Your task to perform on an android device: Search for sushi restaurants on Maps Image 0: 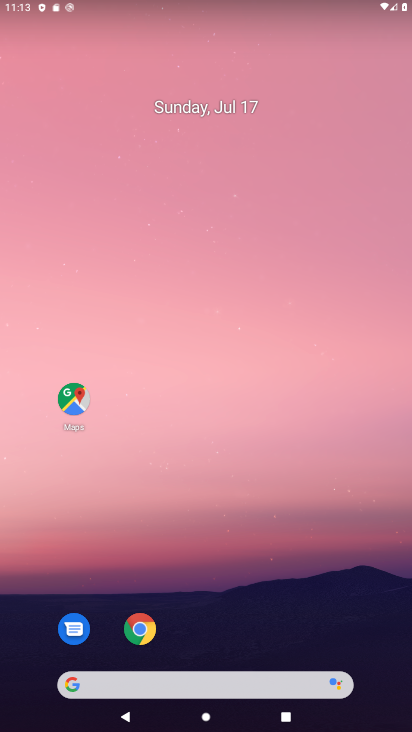
Step 0: drag from (171, 555) to (182, 250)
Your task to perform on an android device: Search for sushi restaurants on Maps Image 1: 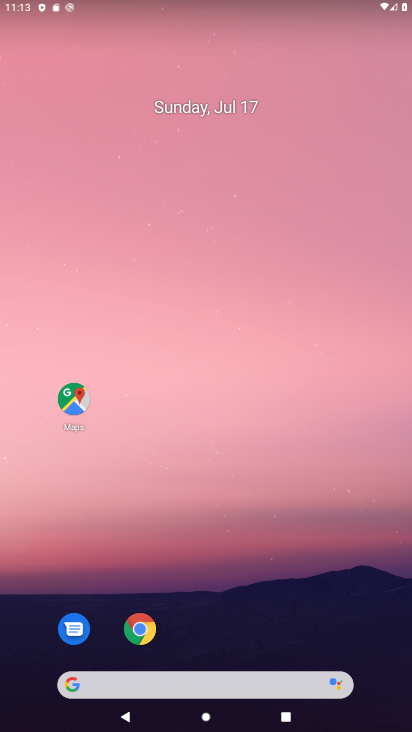
Step 1: click (73, 395)
Your task to perform on an android device: Search for sushi restaurants on Maps Image 2: 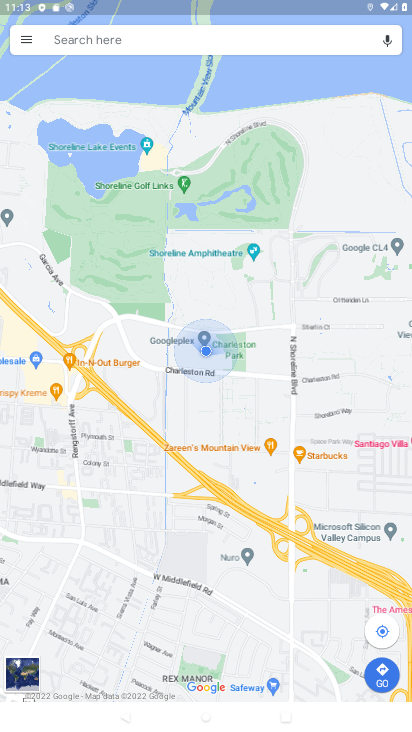
Step 2: click (202, 31)
Your task to perform on an android device: Search for sushi restaurants on Maps Image 3: 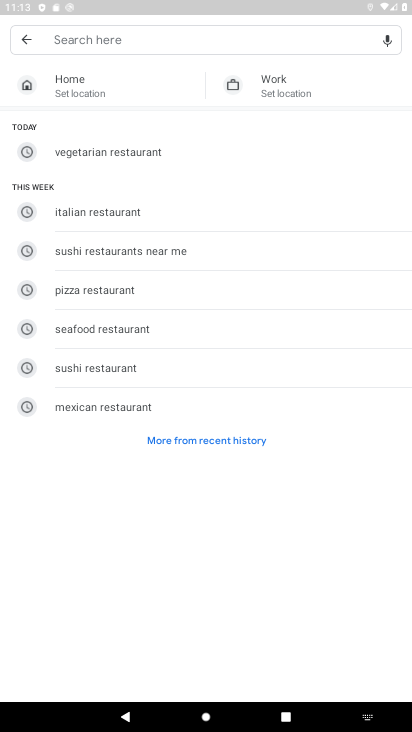
Step 3: type " sushi restaurants "
Your task to perform on an android device: Search for sushi restaurants on Maps Image 4: 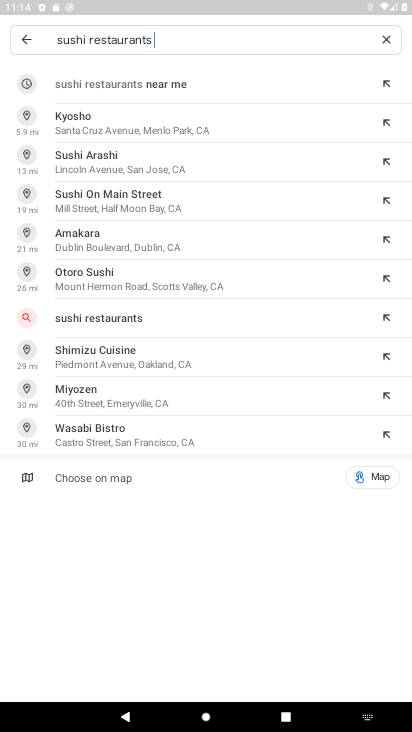
Step 4: click (164, 41)
Your task to perform on an android device: Search for sushi restaurants on Maps Image 5: 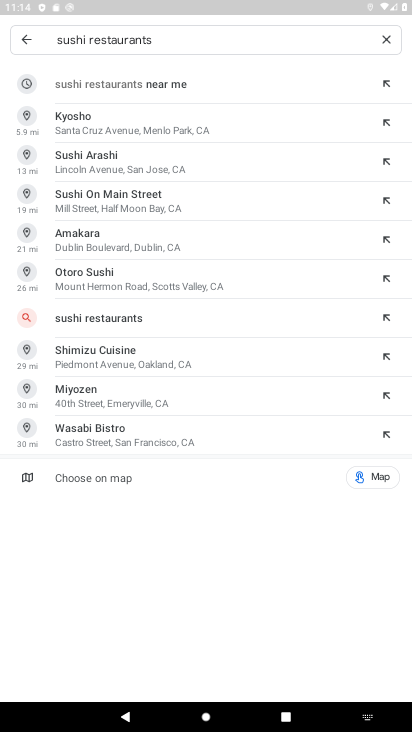
Step 5: click (13, 39)
Your task to perform on an android device: Search for sushi restaurants on Maps Image 6: 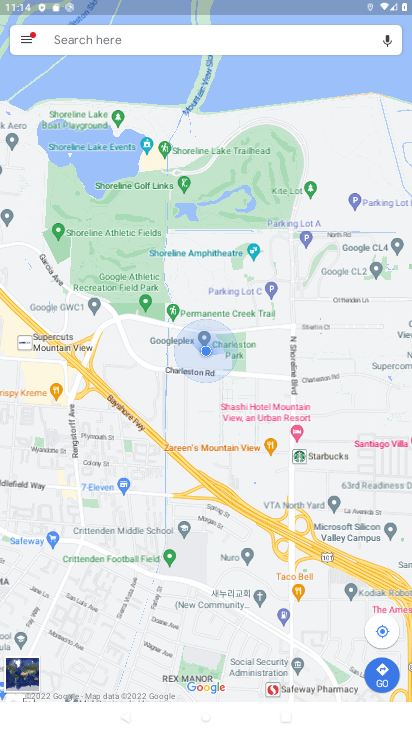
Step 6: click (242, 38)
Your task to perform on an android device: Search for sushi restaurants on Maps Image 7: 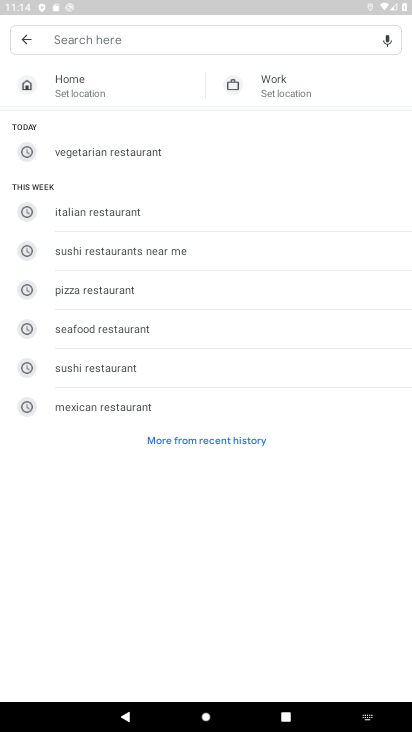
Step 7: click (162, 366)
Your task to perform on an android device: Search for sushi restaurants on Maps Image 8: 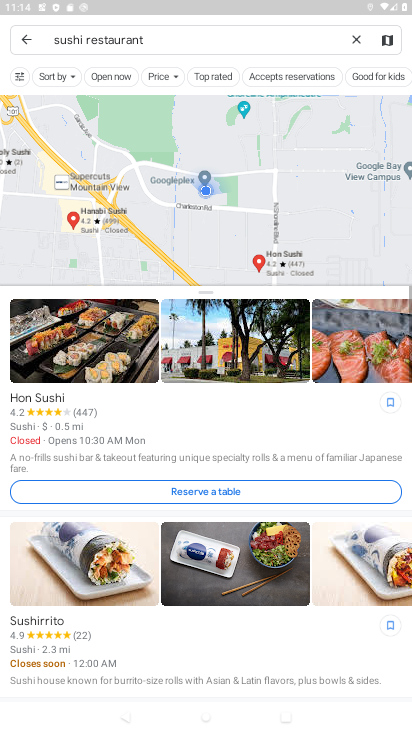
Step 8: task complete